Your task to perform on an android device: Do I have any events this weekend? Image 0: 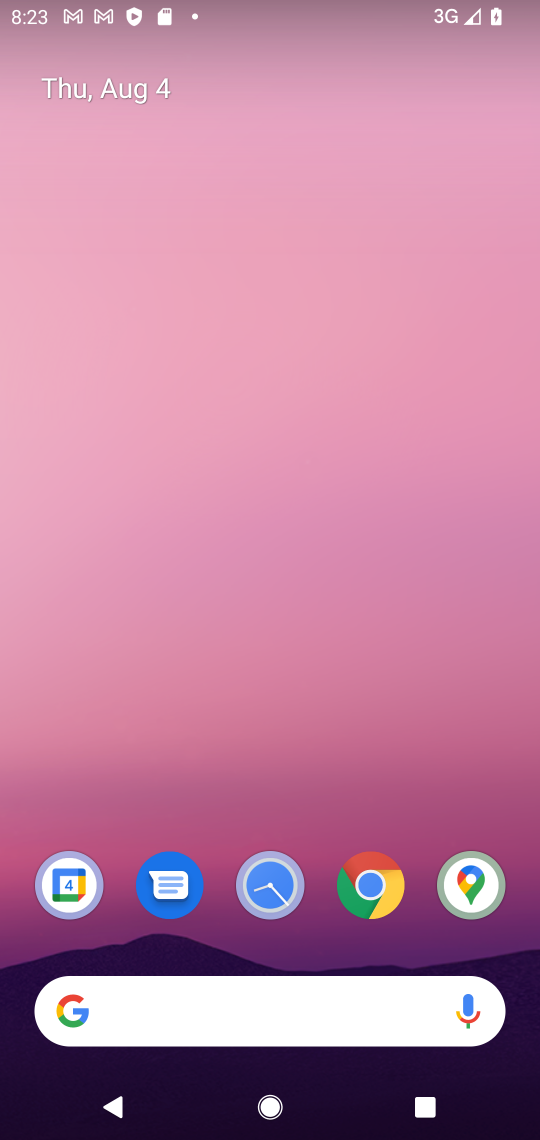
Step 0: press home button
Your task to perform on an android device: Do I have any events this weekend? Image 1: 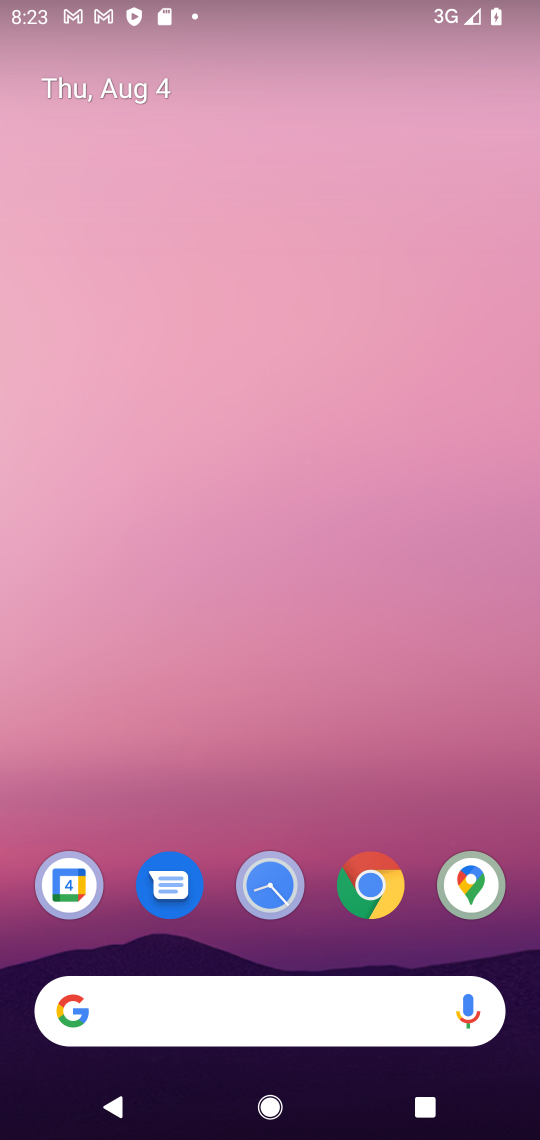
Step 1: drag from (293, 725) to (81, 233)
Your task to perform on an android device: Do I have any events this weekend? Image 2: 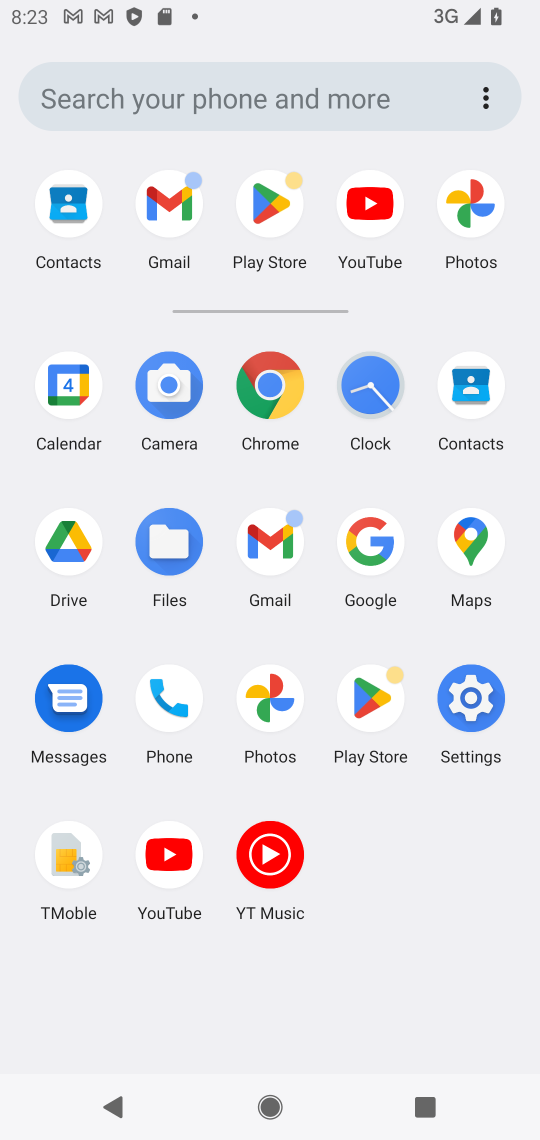
Step 2: click (66, 377)
Your task to perform on an android device: Do I have any events this weekend? Image 3: 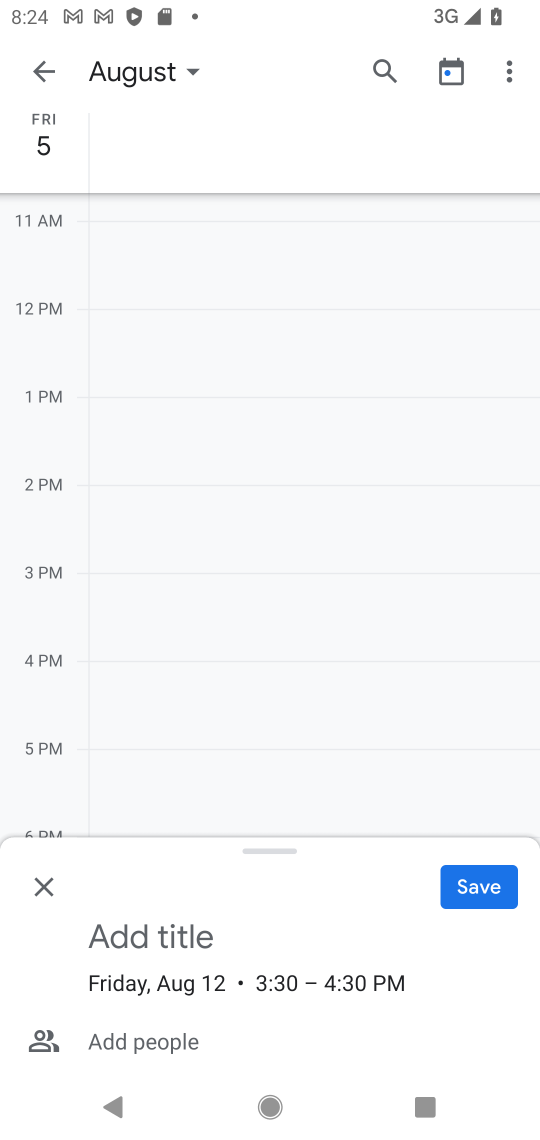
Step 3: click (176, 78)
Your task to perform on an android device: Do I have any events this weekend? Image 4: 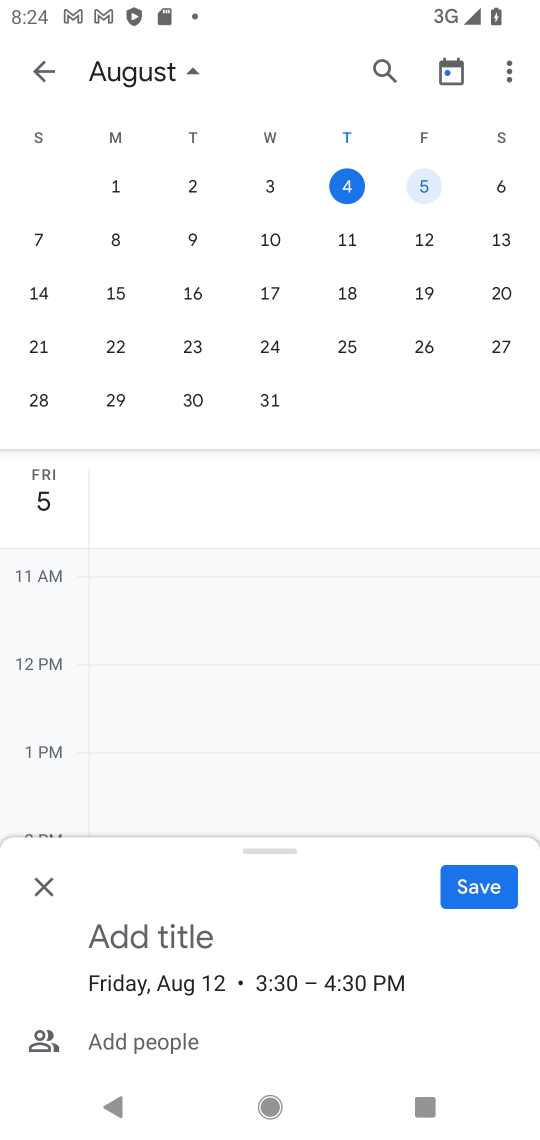
Step 4: click (421, 261)
Your task to perform on an android device: Do I have any events this weekend? Image 5: 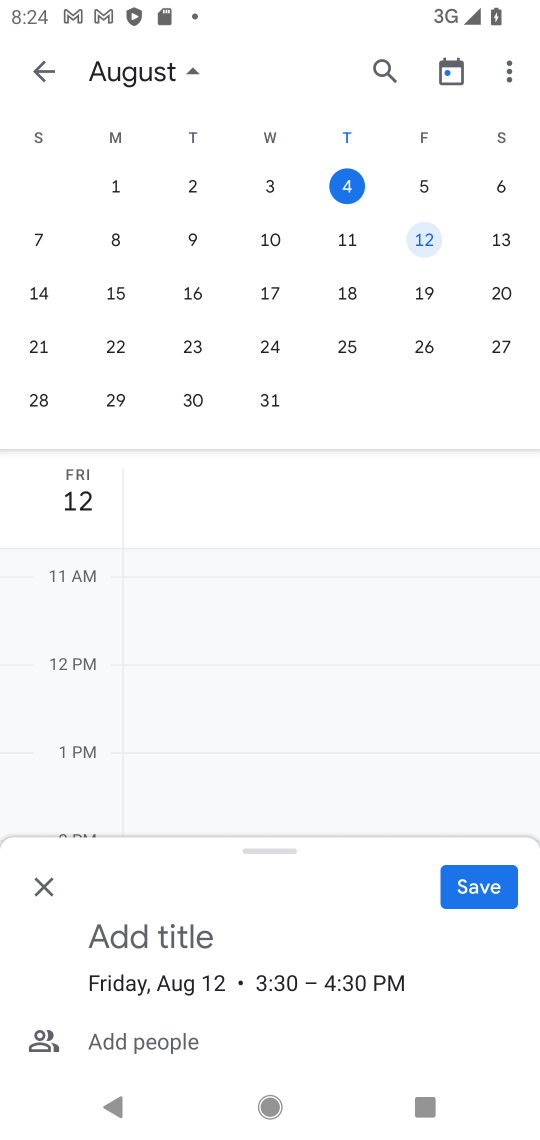
Step 5: task complete